Your task to perform on an android device: make emails show in primary in the gmail app Image 0: 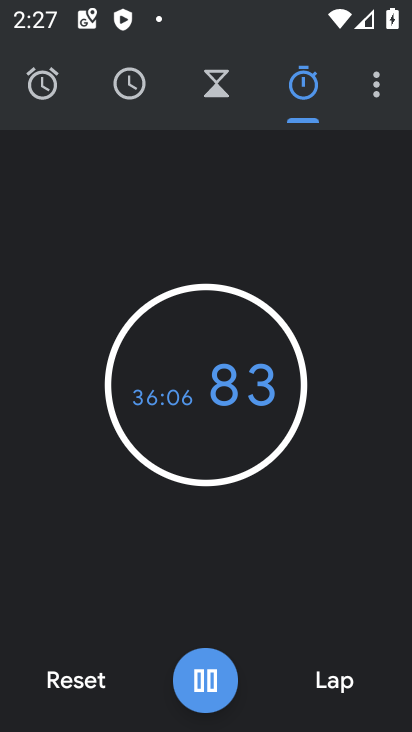
Step 0: press home button
Your task to perform on an android device: make emails show in primary in the gmail app Image 1: 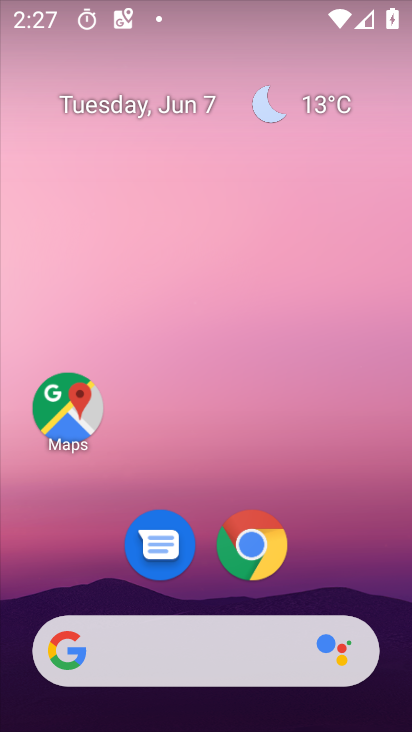
Step 1: drag from (351, 592) to (203, 16)
Your task to perform on an android device: make emails show in primary in the gmail app Image 2: 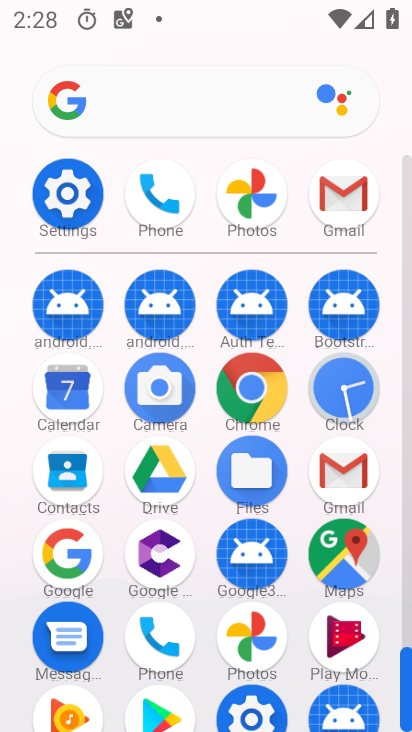
Step 2: click (353, 185)
Your task to perform on an android device: make emails show in primary in the gmail app Image 3: 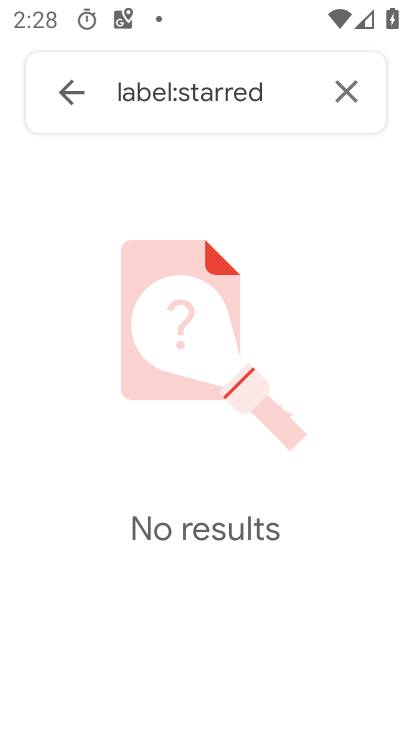
Step 3: click (66, 102)
Your task to perform on an android device: make emails show in primary in the gmail app Image 4: 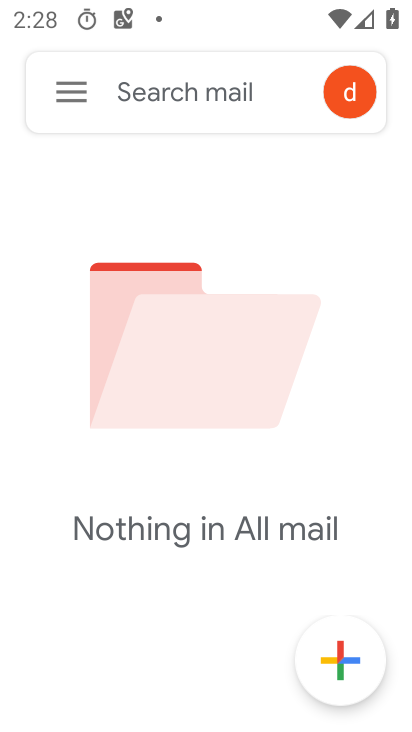
Step 4: click (72, 93)
Your task to perform on an android device: make emails show in primary in the gmail app Image 5: 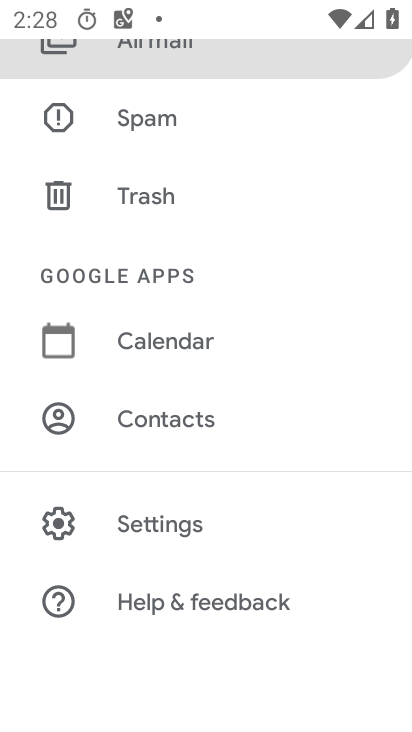
Step 5: task complete